Your task to perform on an android device: Check the weather Image 0: 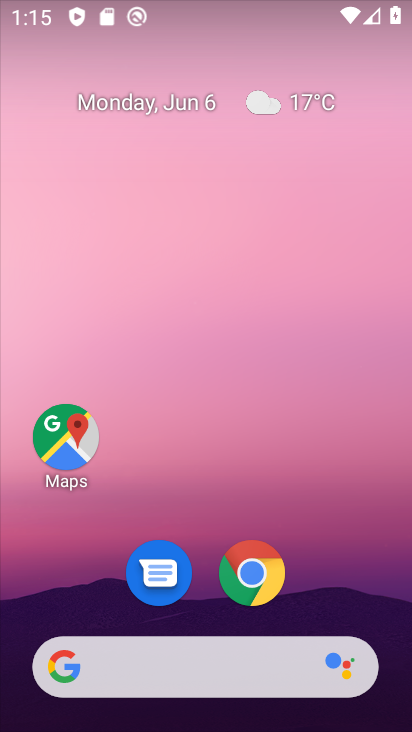
Step 0: click (294, 114)
Your task to perform on an android device: Check the weather Image 1: 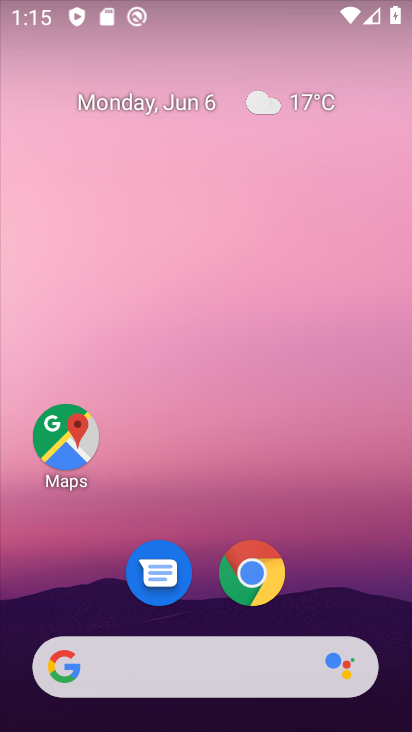
Step 1: click (309, 106)
Your task to perform on an android device: Check the weather Image 2: 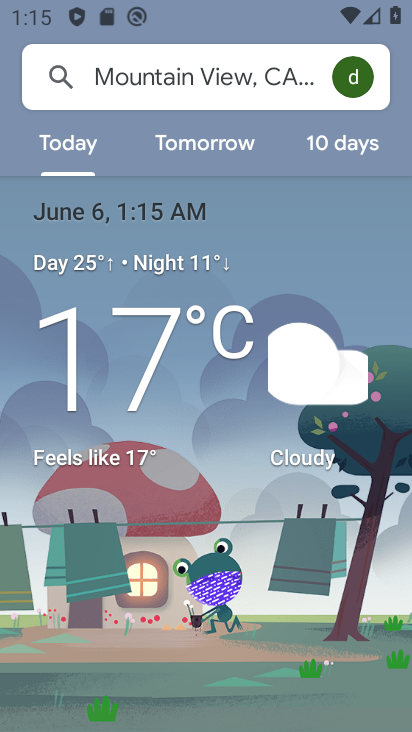
Step 2: task complete